Your task to perform on an android device: delete a single message in the gmail app Image 0: 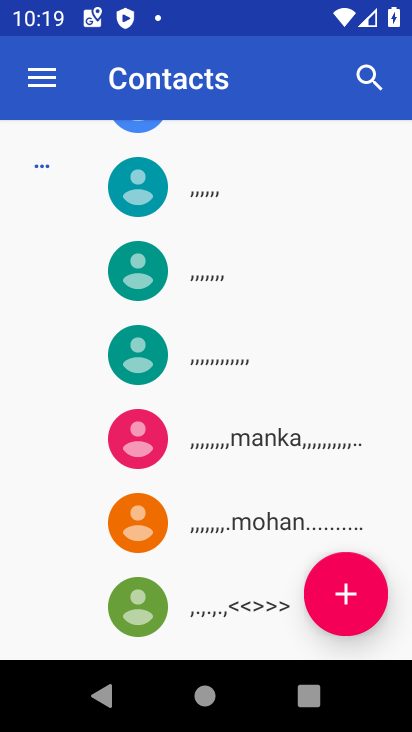
Step 0: press home button
Your task to perform on an android device: delete a single message in the gmail app Image 1: 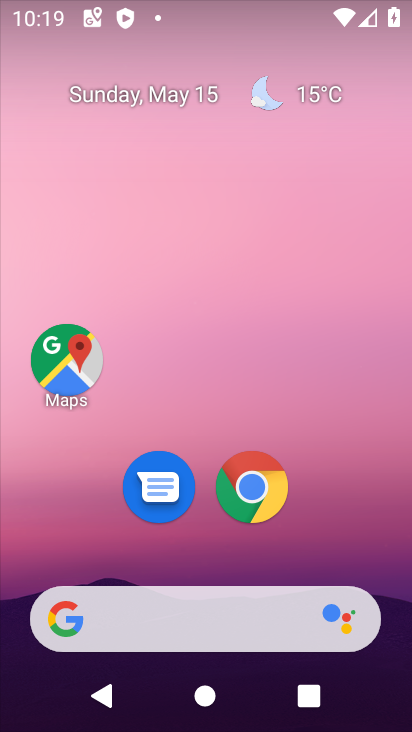
Step 1: drag from (401, 614) to (326, 67)
Your task to perform on an android device: delete a single message in the gmail app Image 2: 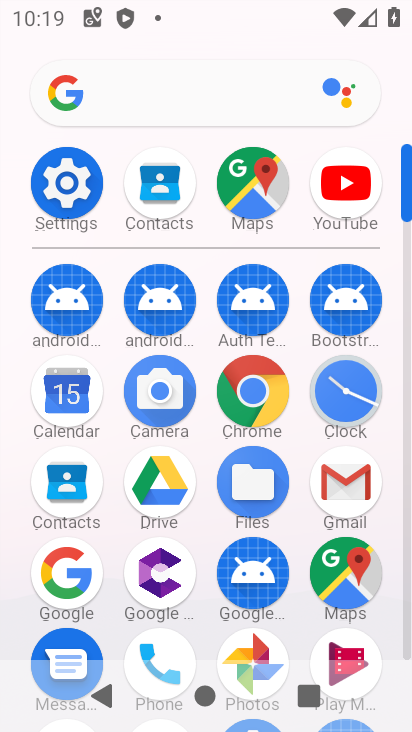
Step 2: click (408, 632)
Your task to perform on an android device: delete a single message in the gmail app Image 3: 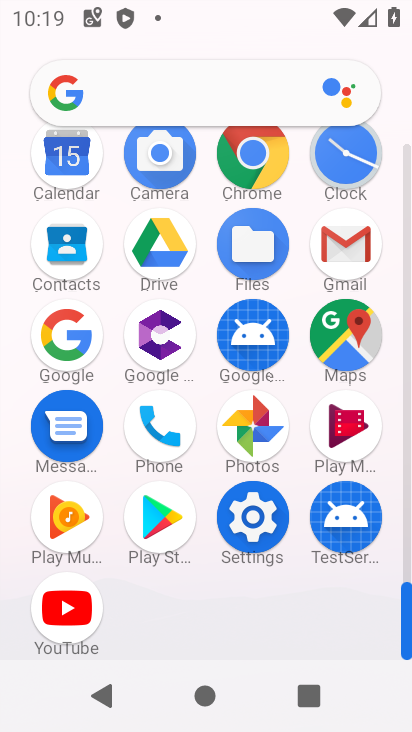
Step 3: click (345, 238)
Your task to perform on an android device: delete a single message in the gmail app Image 4: 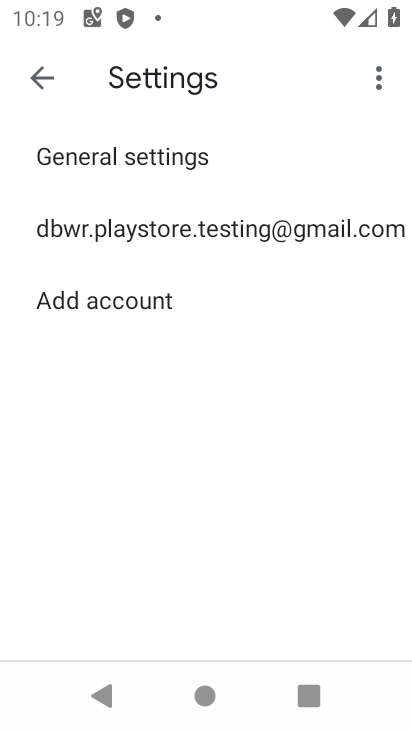
Step 4: press back button
Your task to perform on an android device: delete a single message in the gmail app Image 5: 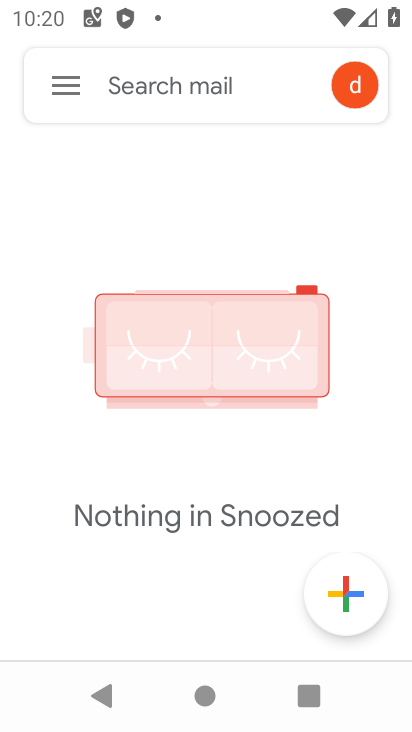
Step 5: click (68, 86)
Your task to perform on an android device: delete a single message in the gmail app Image 6: 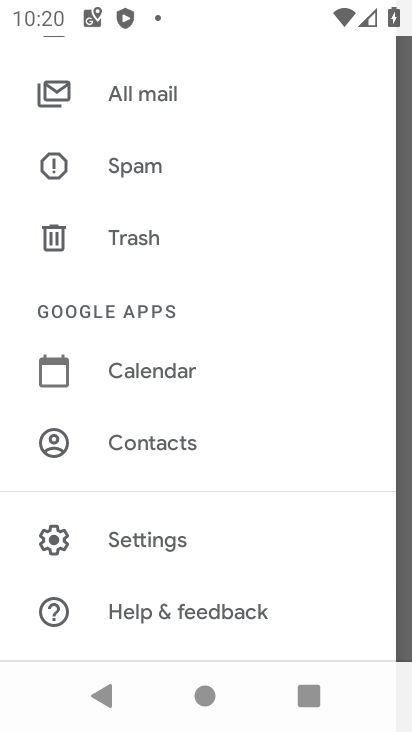
Step 6: drag from (223, 232) to (212, 423)
Your task to perform on an android device: delete a single message in the gmail app Image 7: 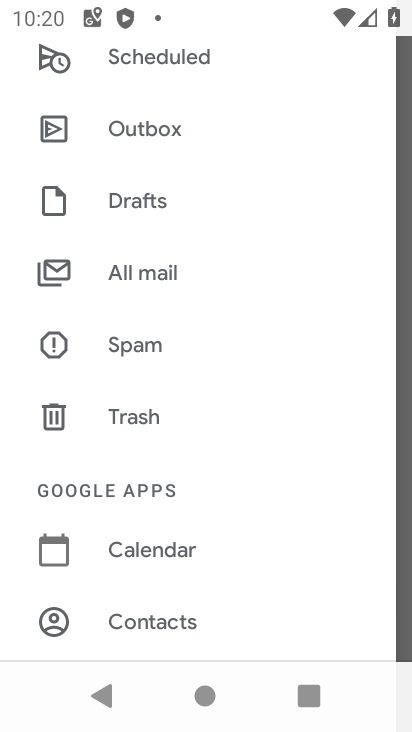
Step 7: click (140, 264)
Your task to perform on an android device: delete a single message in the gmail app Image 8: 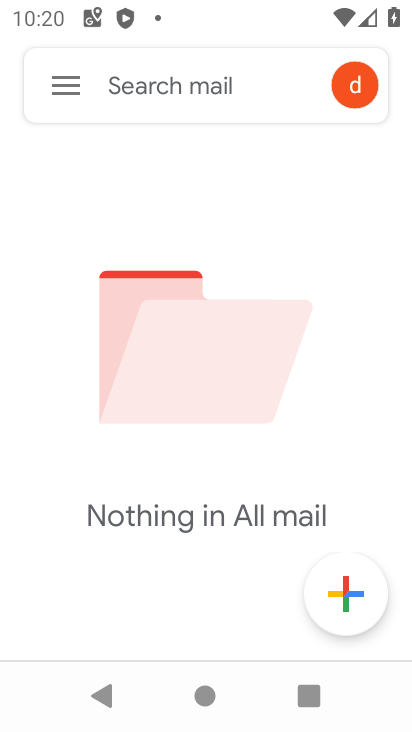
Step 8: task complete